Your task to perform on an android device: change the clock display to digital Image 0: 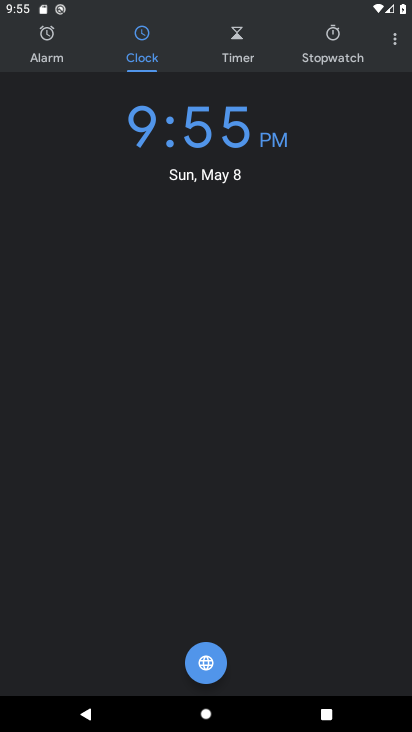
Step 0: click (394, 45)
Your task to perform on an android device: change the clock display to digital Image 1: 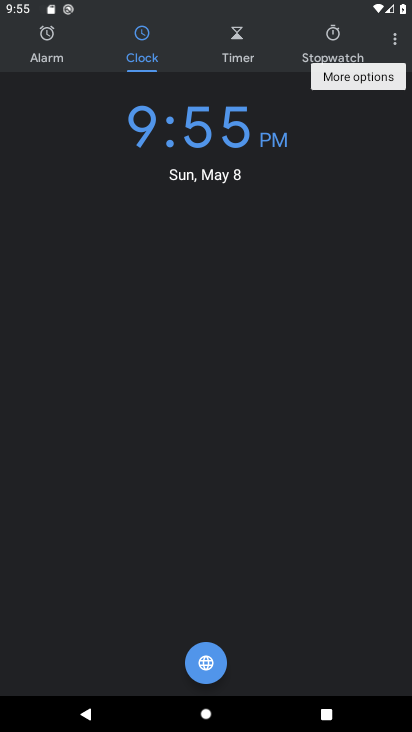
Step 1: click (394, 45)
Your task to perform on an android device: change the clock display to digital Image 2: 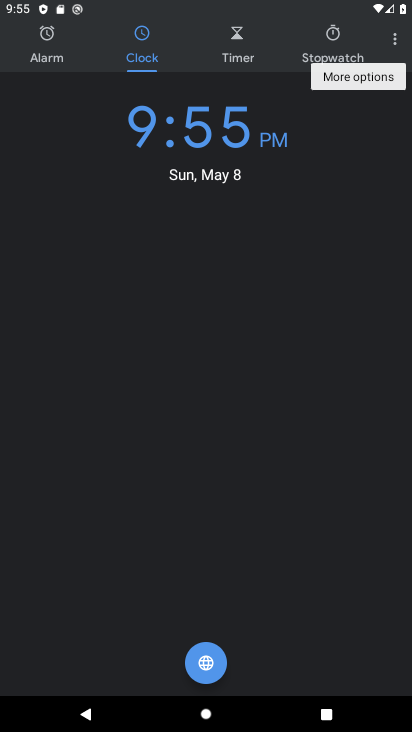
Step 2: drag from (393, 33) to (372, 79)
Your task to perform on an android device: change the clock display to digital Image 3: 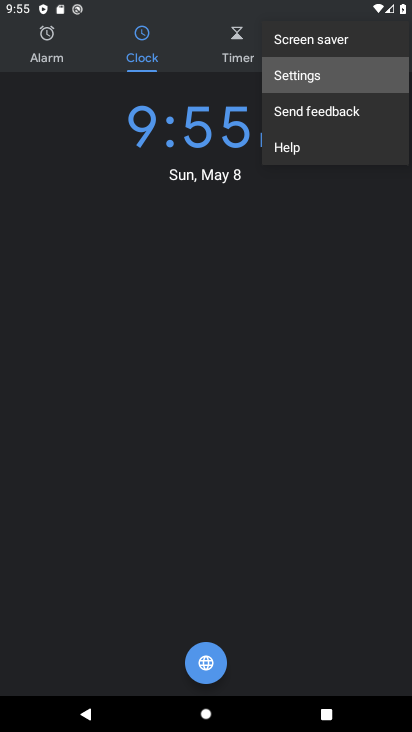
Step 3: click (372, 79)
Your task to perform on an android device: change the clock display to digital Image 4: 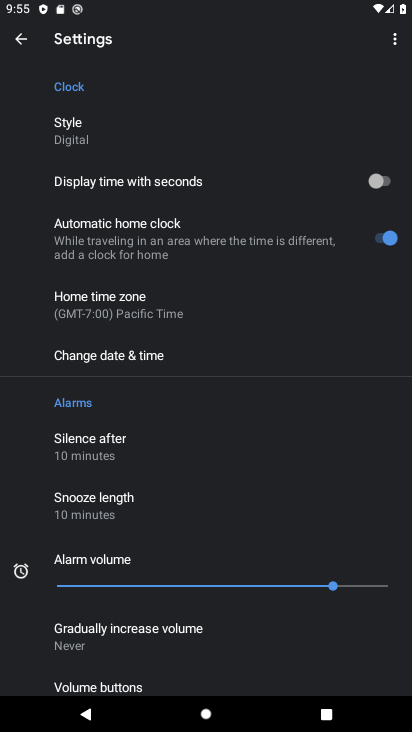
Step 4: task complete